Your task to perform on an android device: Go to location settings Image 0: 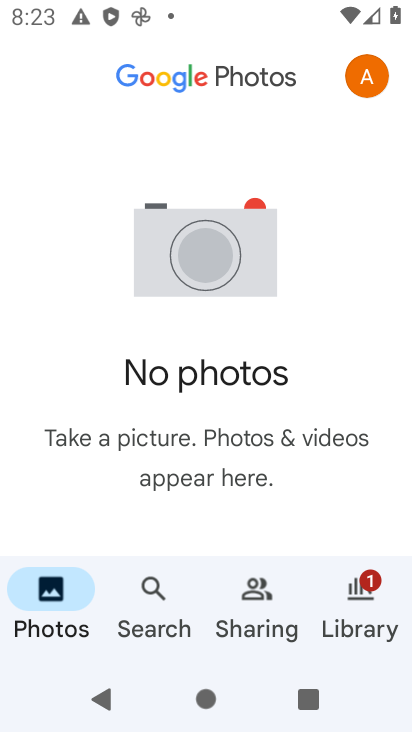
Step 0: press home button
Your task to perform on an android device: Go to location settings Image 1: 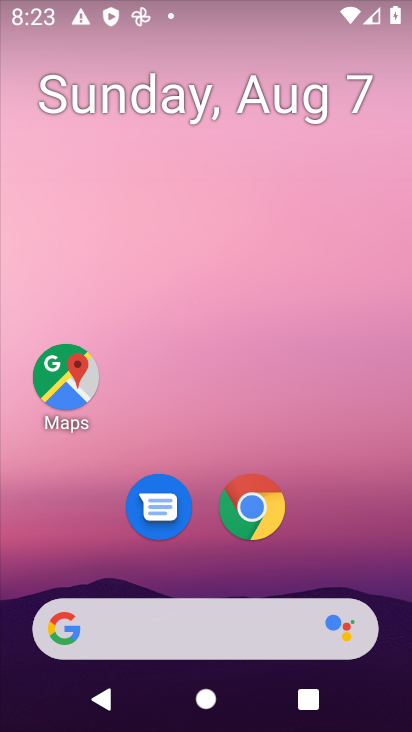
Step 1: drag from (190, 634) to (290, 155)
Your task to perform on an android device: Go to location settings Image 2: 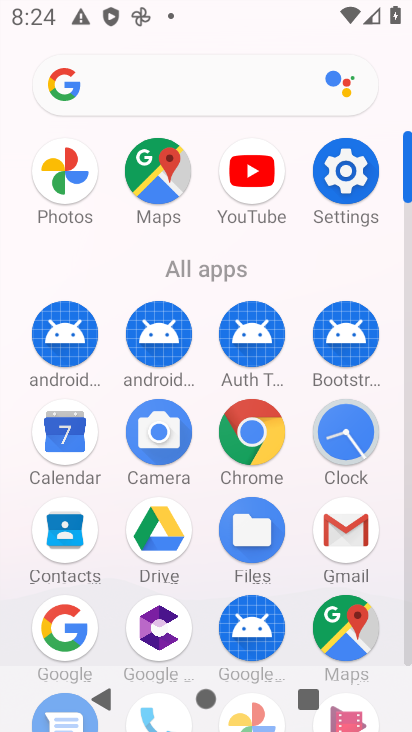
Step 2: click (352, 181)
Your task to perform on an android device: Go to location settings Image 3: 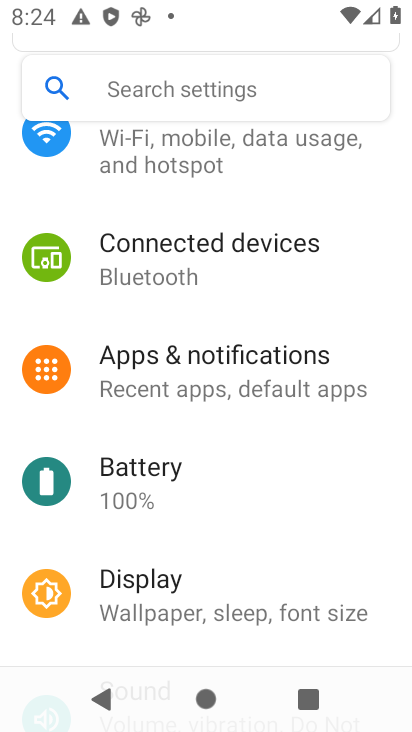
Step 3: drag from (233, 635) to (299, 100)
Your task to perform on an android device: Go to location settings Image 4: 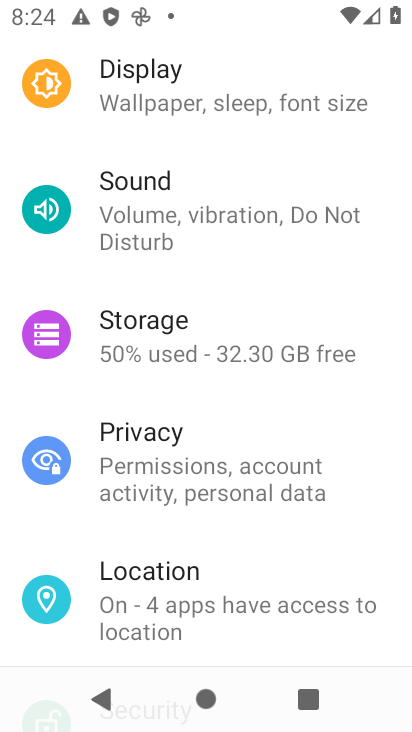
Step 4: click (169, 572)
Your task to perform on an android device: Go to location settings Image 5: 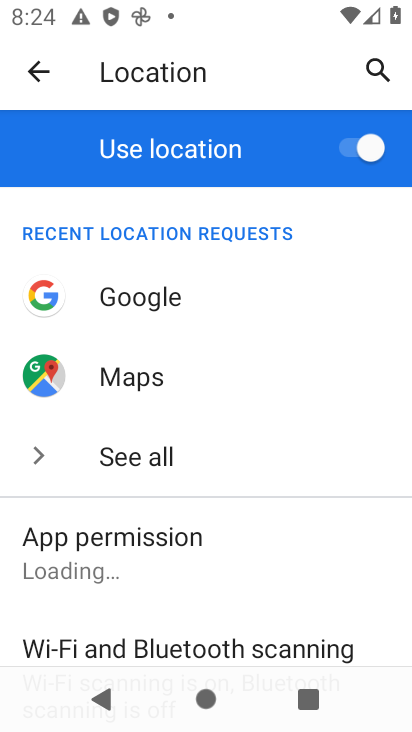
Step 5: task complete